Your task to perform on an android device: Open the calendar app, open the side menu, and click the "Day" option Image 0: 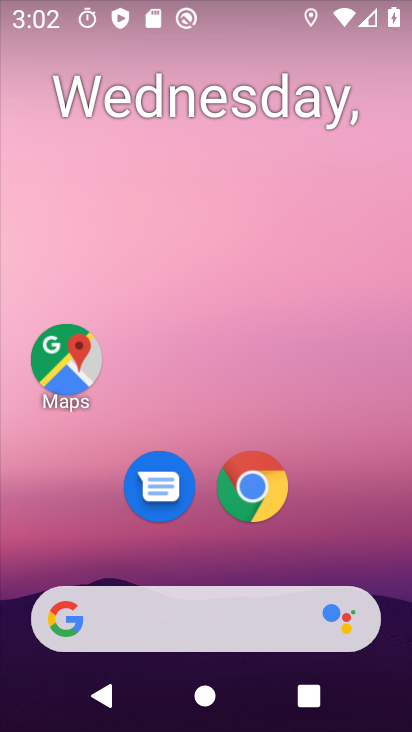
Step 0: drag from (336, 537) to (266, 33)
Your task to perform on an android device: Open the calendar app, open the side menu, and click the "Day" option Image 1: 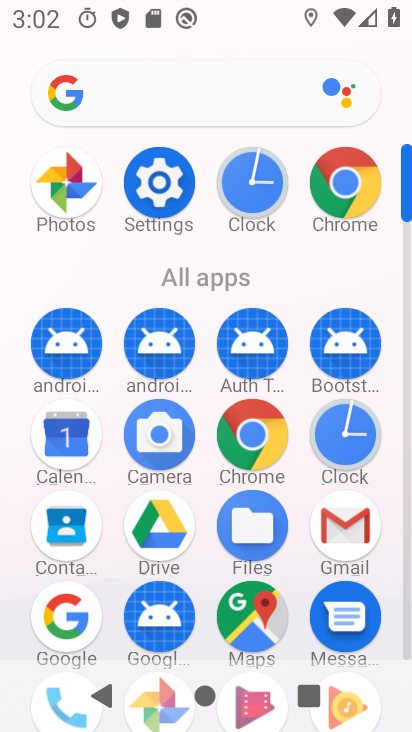
Step 1: click (68, 437)
Your task to perform on an android device: Open the calendar app, open the side menu, and click the "Day" option Image 2: 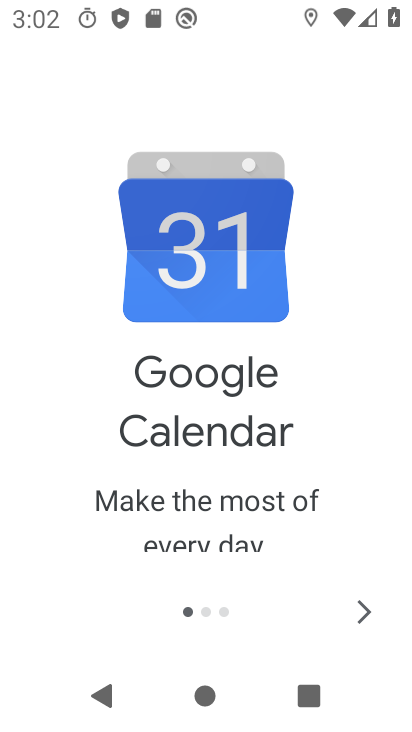
Step 2: click (356, 593)
Your task to perform on an android device: Open the calendar app, open the side menu, and click the "Day" option Image 3: 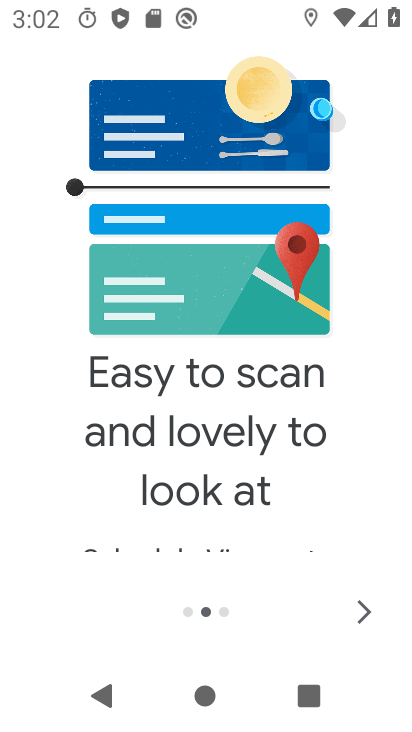
Step 3: click (356, 593)
Your task to perform on an android device: Open the calendar app, open the side menu, and click the "Day" option Image 4: 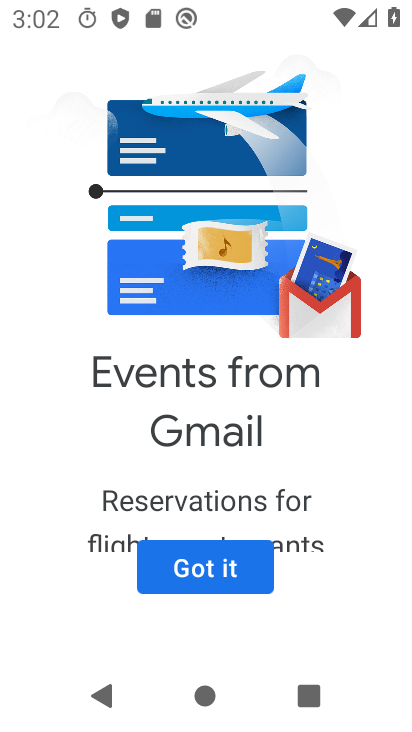
Step 4: click (228, 575)
Your task to perform on an android device: Open the calendar app, open the side menu, and click the "Day" option Image 5: 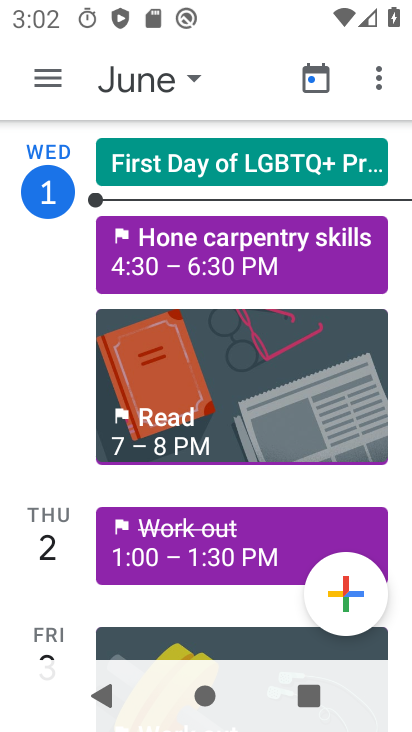
Step 5: click (58, 79)
Your task to perform on an android device: Open the calendar app, open the side menu, and click the "Day" option Image 6: 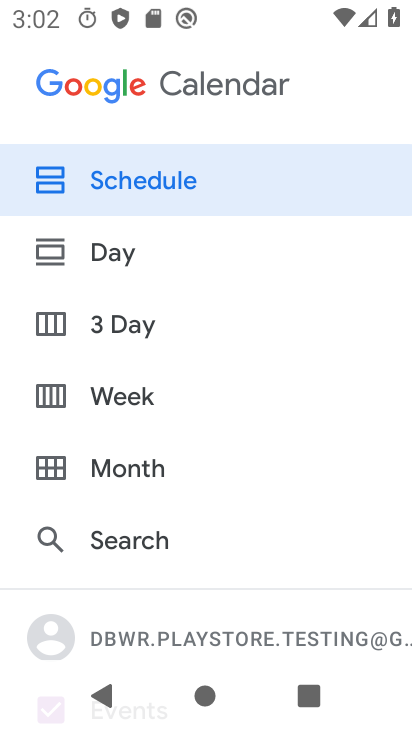
Step 6: click (105, 254)
Your task to perform on an android device: Open the calendar app, open the side menu, and click the "Day" option Image 7: 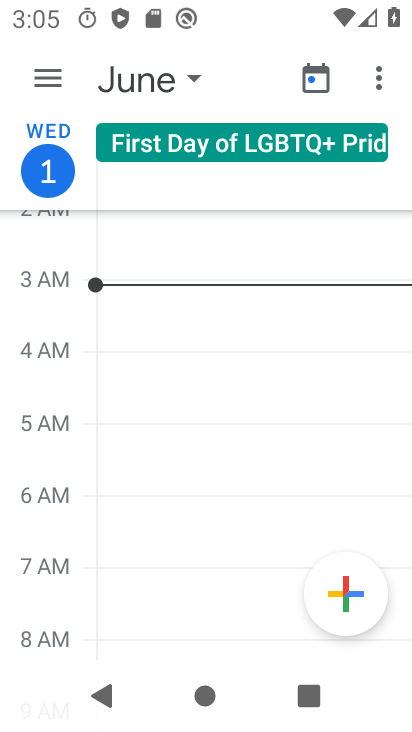
Step 7: task complete